Your task to perform on an android device: see creations saved in the google photos Image 0: 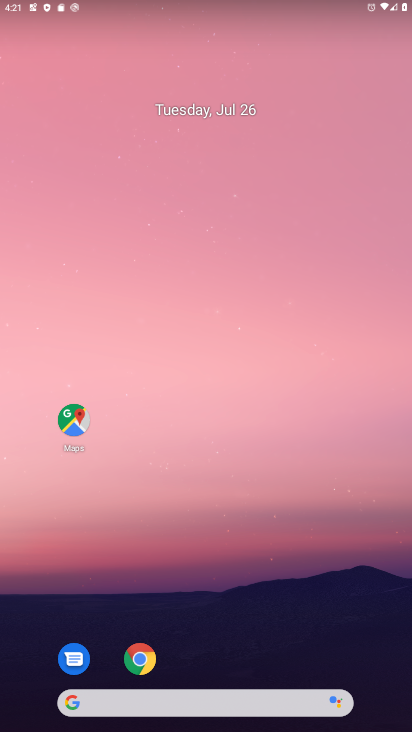
Step 0: press home button
Your task to perform on an android device: see creations saved in the google photos Image 1: 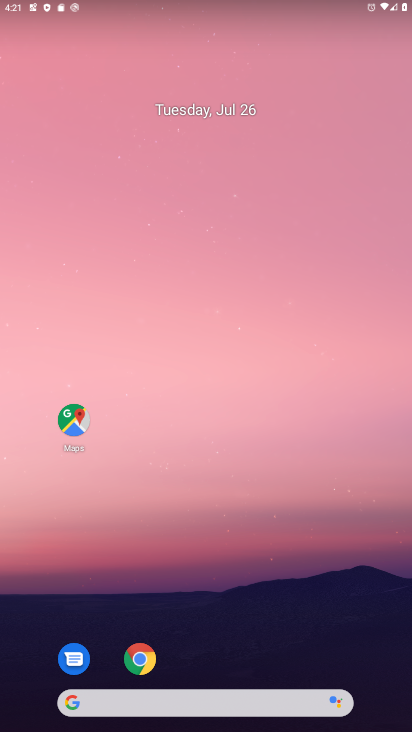
Step 1: drag from (254, 607) to (266, 24)
Your task to perform on an android device: see creations saved in the google photos Image 2: 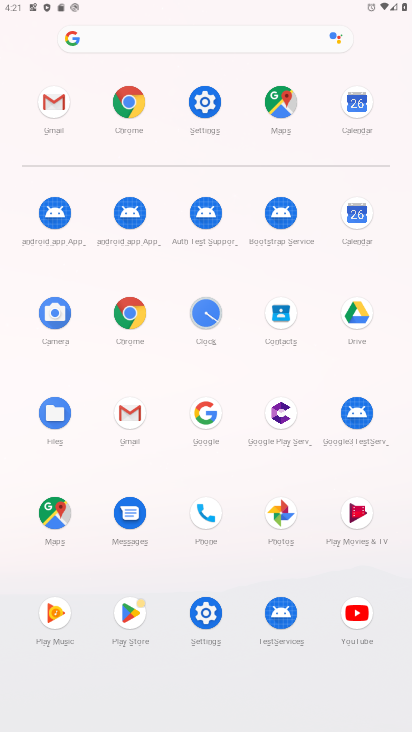
Step 2: click (281, 513)
Your task to perform on an android device: see creations saved in the google photos Image 3: 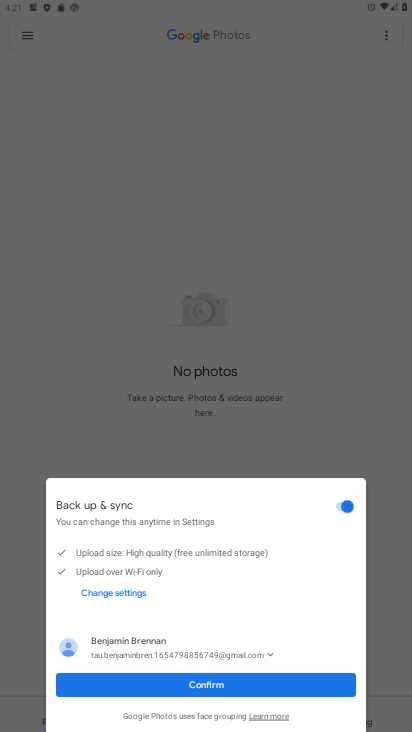
Step 3: click (212, 687)
Your task to perform on an android device: see creations saved in the google photos Image 4: 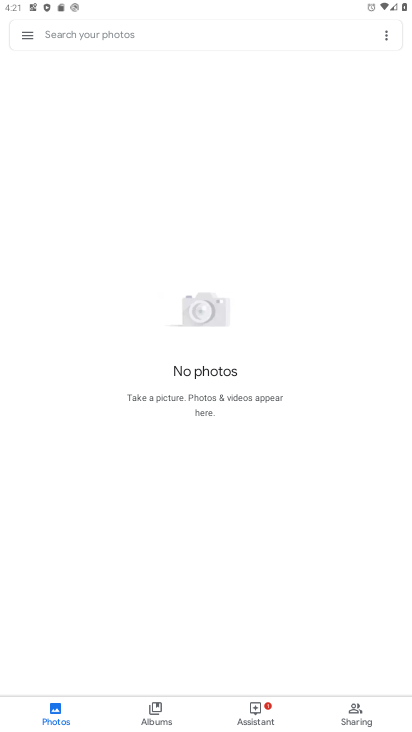
Step 4: click (131, 31)
Your task to perform on an android device: see creations saved in the google photos Image 5: 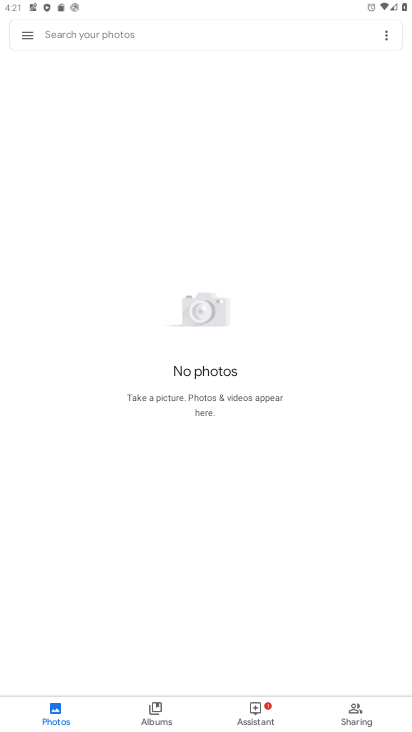
Step 5: click (131, 31)
Your task to perform on an android device: see creations saved in the google photos Image 6: 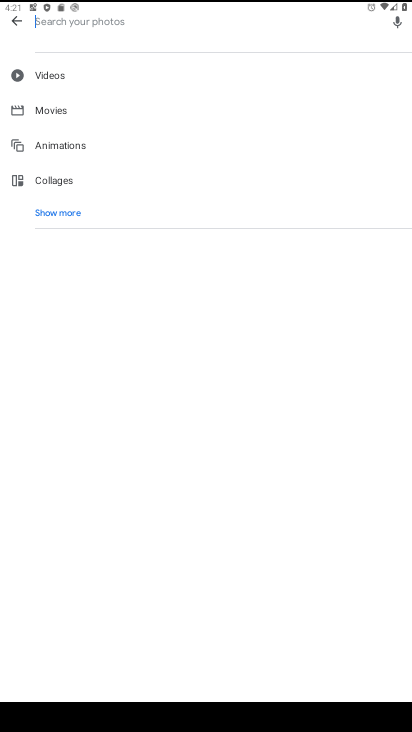
Step 6: click (58, 215)
Your task to perform on an android device: see creations saved in the google photos Image 7: 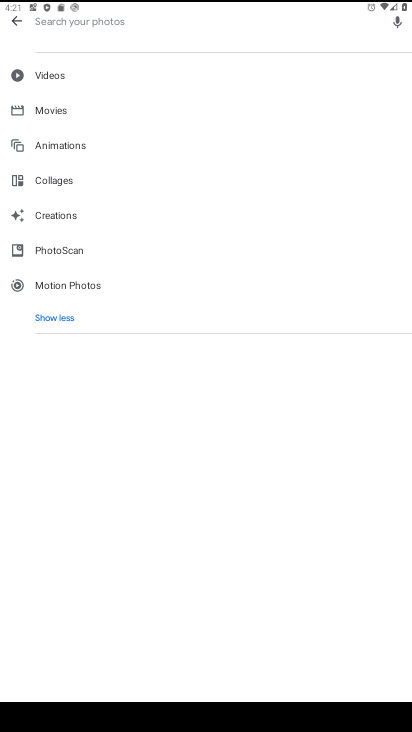
Step 7: click (60, 209)
Your task to perform on an android device: see creations saved in the google photos Image 8: 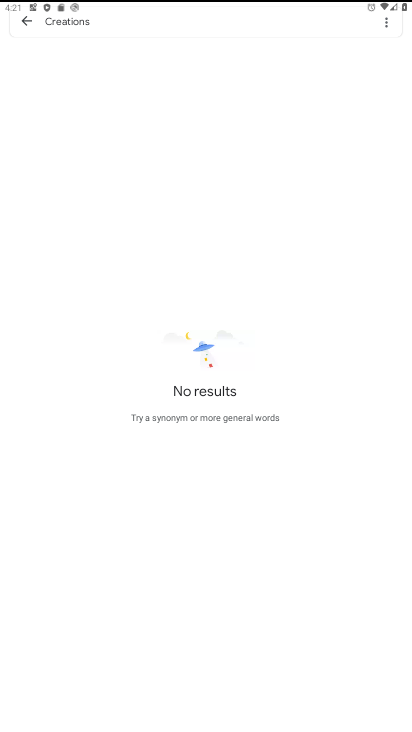
Step 8: task complete